Your task to perform on an android device: check battery use Image 0: 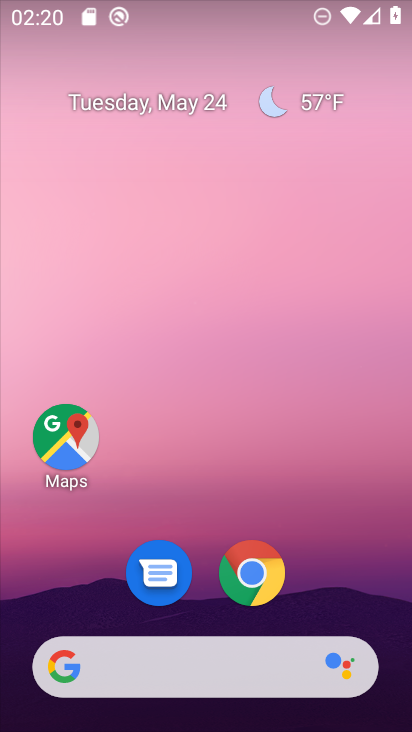
Step 0: drag from (360, 534) to (348, 170)
Your task to perform on an android device: check battery use Image 1: 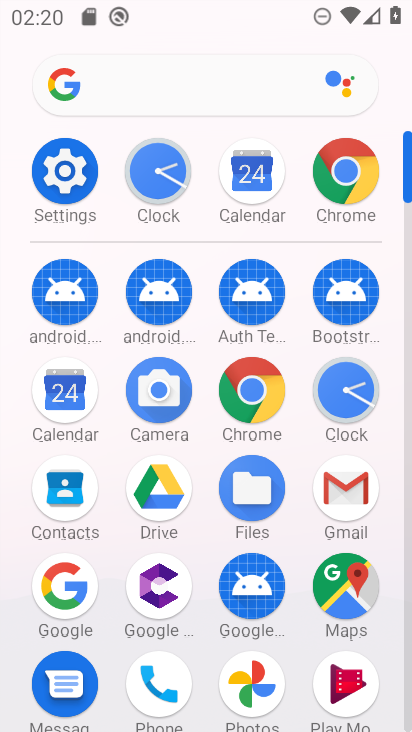
Step 1: click (86, 161)
Your task to perform on an android device: check battery use Image 2: 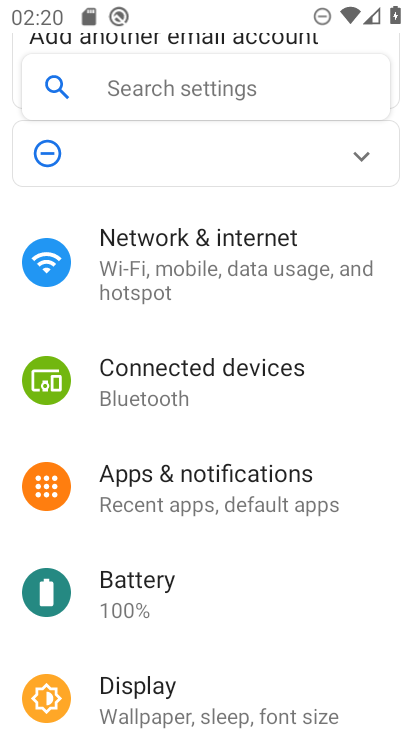
Step 2: click (181, 592)
Your task to perform on an android device: check battery use Image 3: 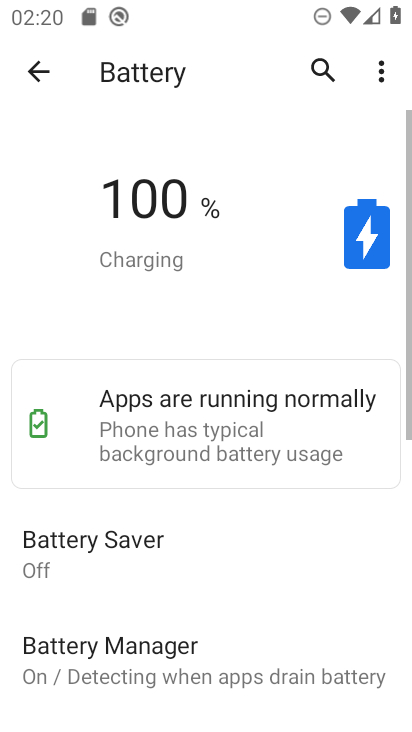
Step 3: task complete